Your task to perform on an android device: uninstall "Duolingo: language lessons" Image 0: 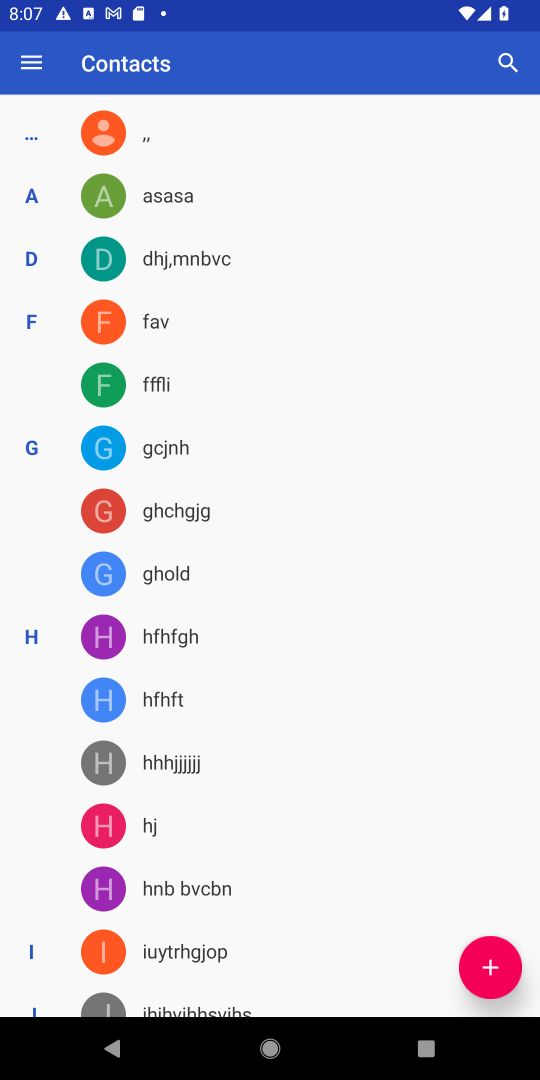
Step 0: press home button
Your task to perform on an android device: uninstall "Duolingo: language lessons" Image 1: 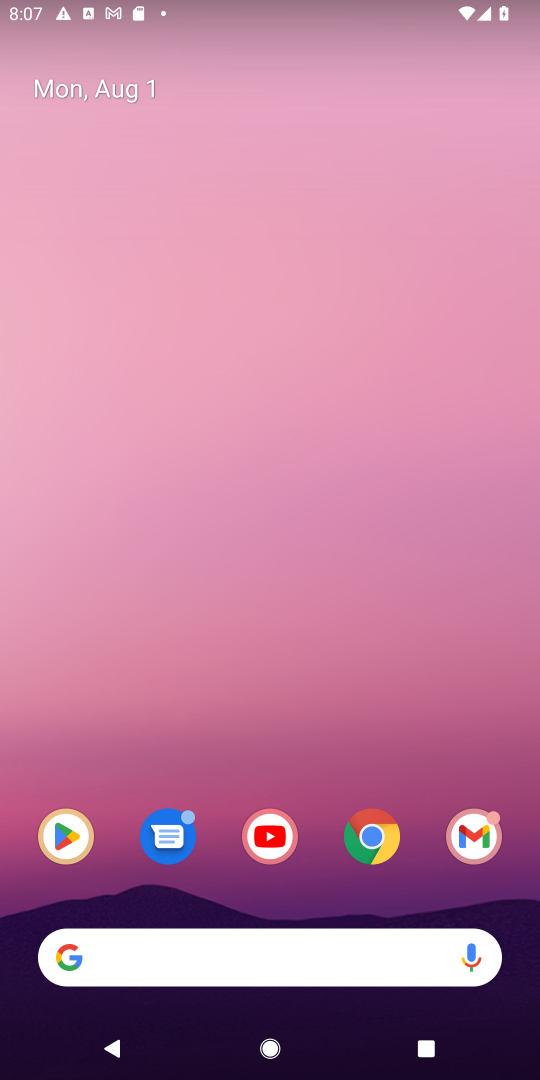
Step 1: click (68, 828)
Your task to perform on an android device: uninstall "Duolingo: language lessons" Image 2: 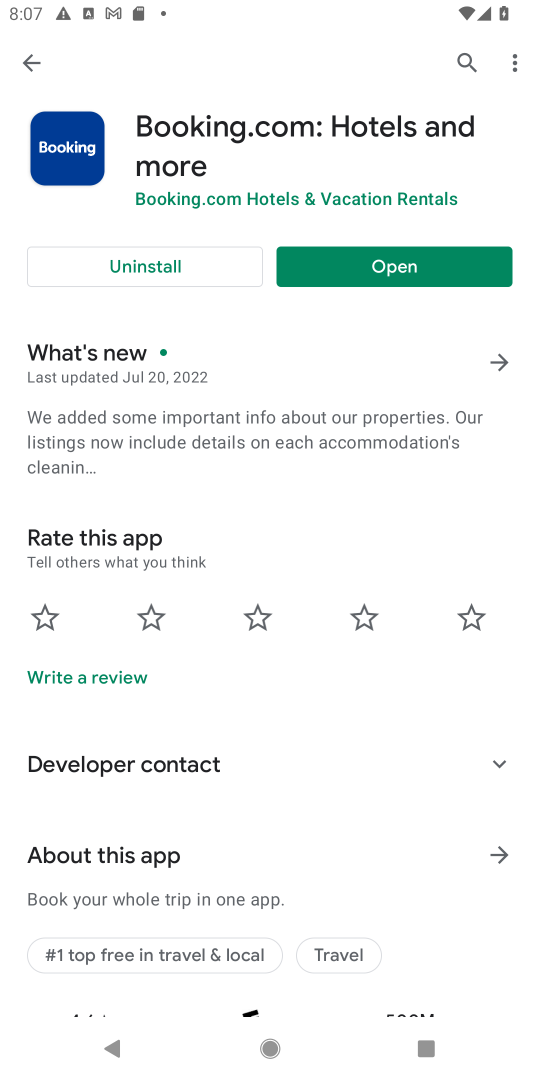
Step 2: click (466, 58)
Your task to perform on an android device: uninstall "Duolingo: language lessons" Image 3: 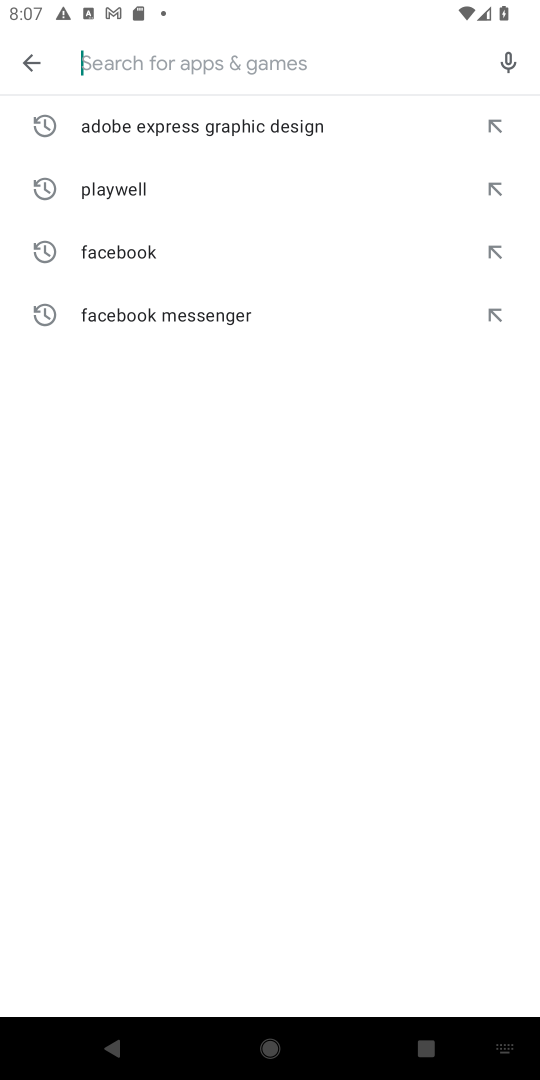
Step 3: type "Duolingo: language lessons"
Your task to perform on an android device: uninstall "Duolingo: language lessons" Image 4: 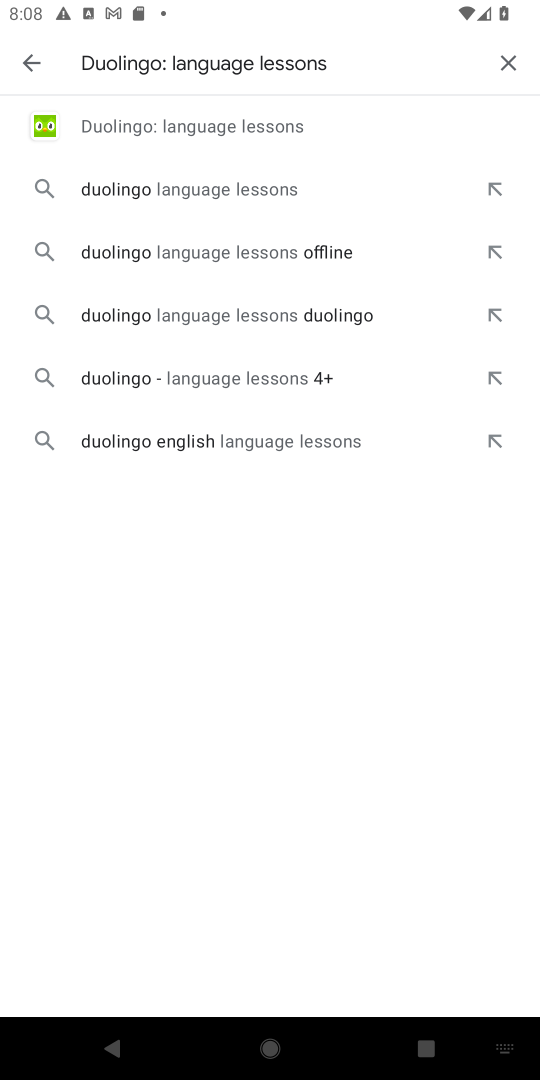
Step 4: click (246, 131)
Your task to perform on an android device: uninstall "Duolingo: language lessons" Image 5: 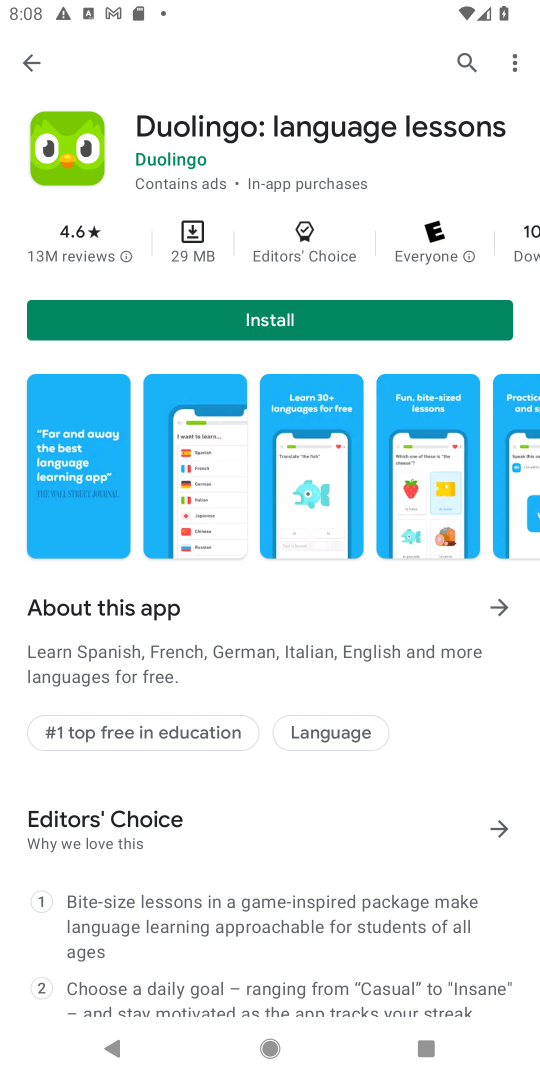
Step 5: task complete